Your task to perform on an android device: Where can I buy a nice beach hat? Image 0: 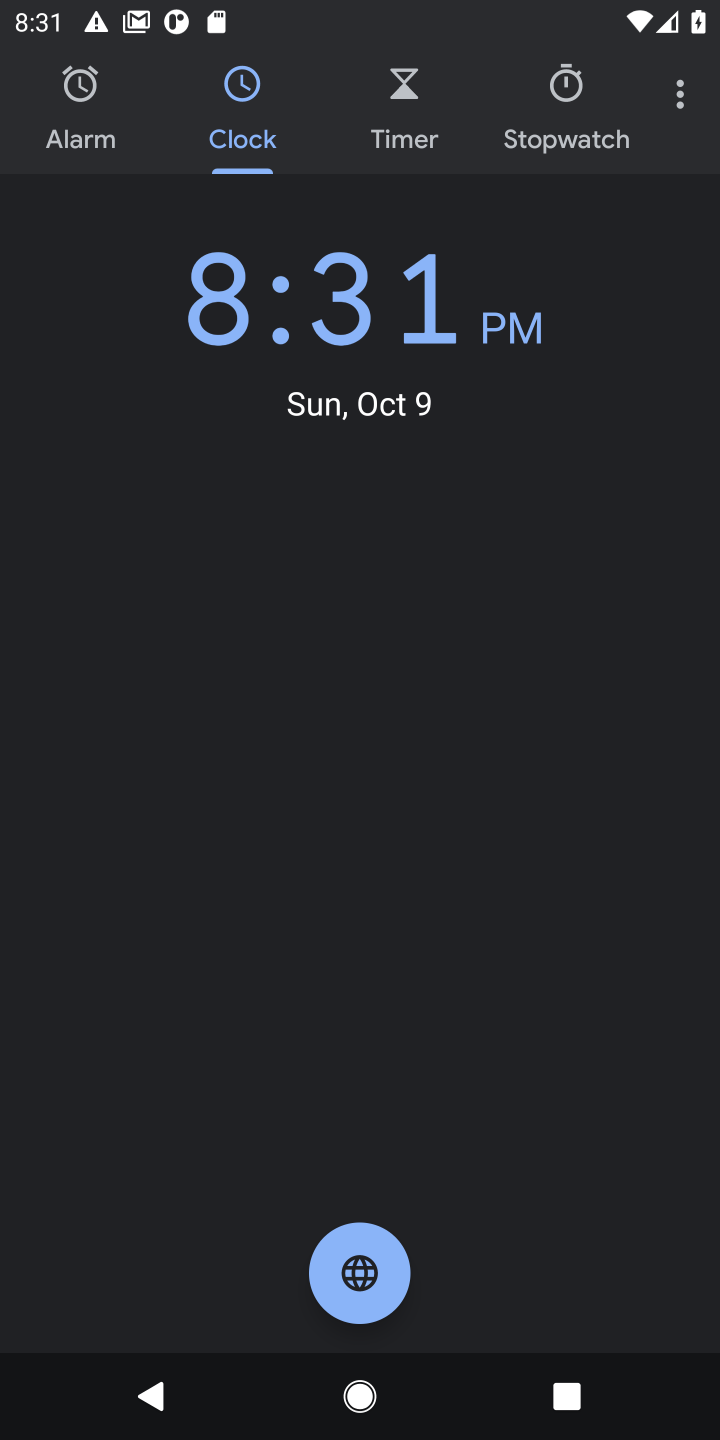
Step 0: press home button
Your task to perform on an android device: Where can I buy a nice beach hat? Image 1: 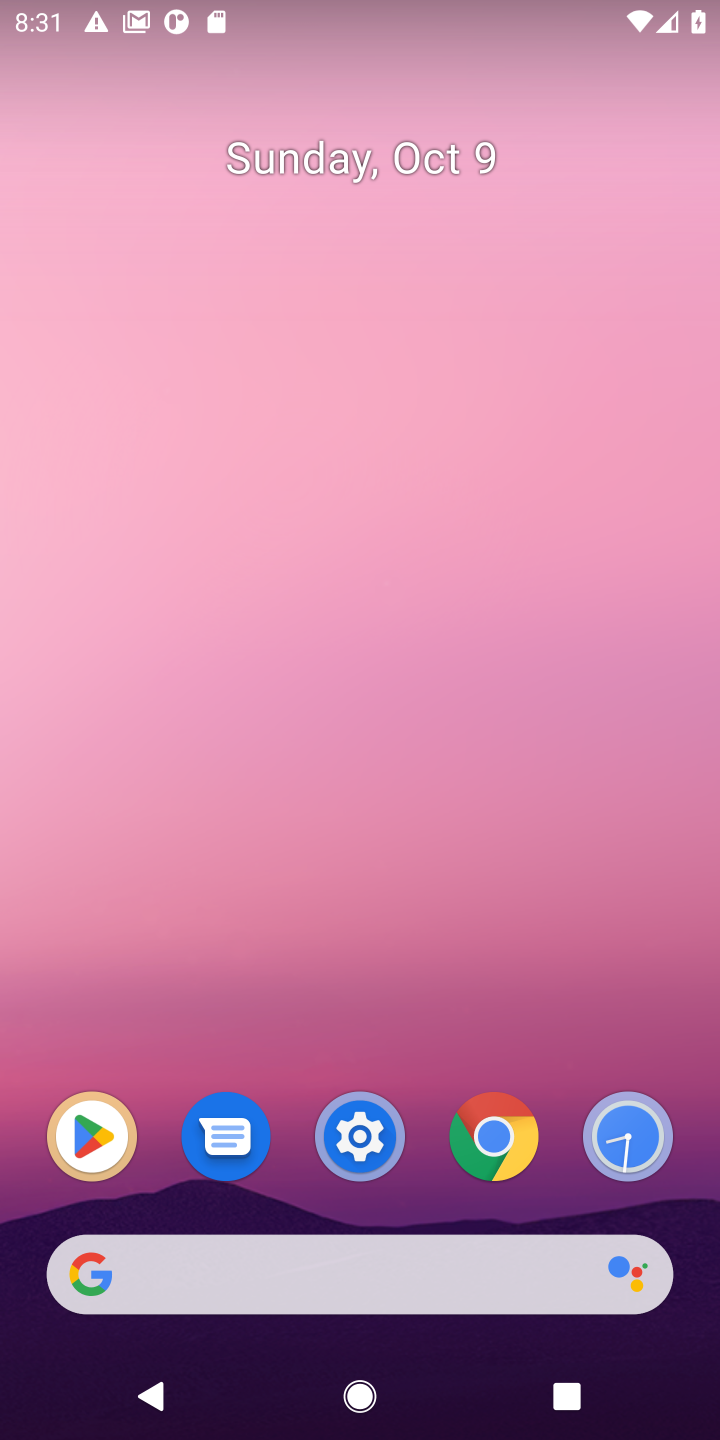
Step 1: click (205, 1292)
Your task to perform on an android device: Where can I buy a nice beach hat? Image 2: 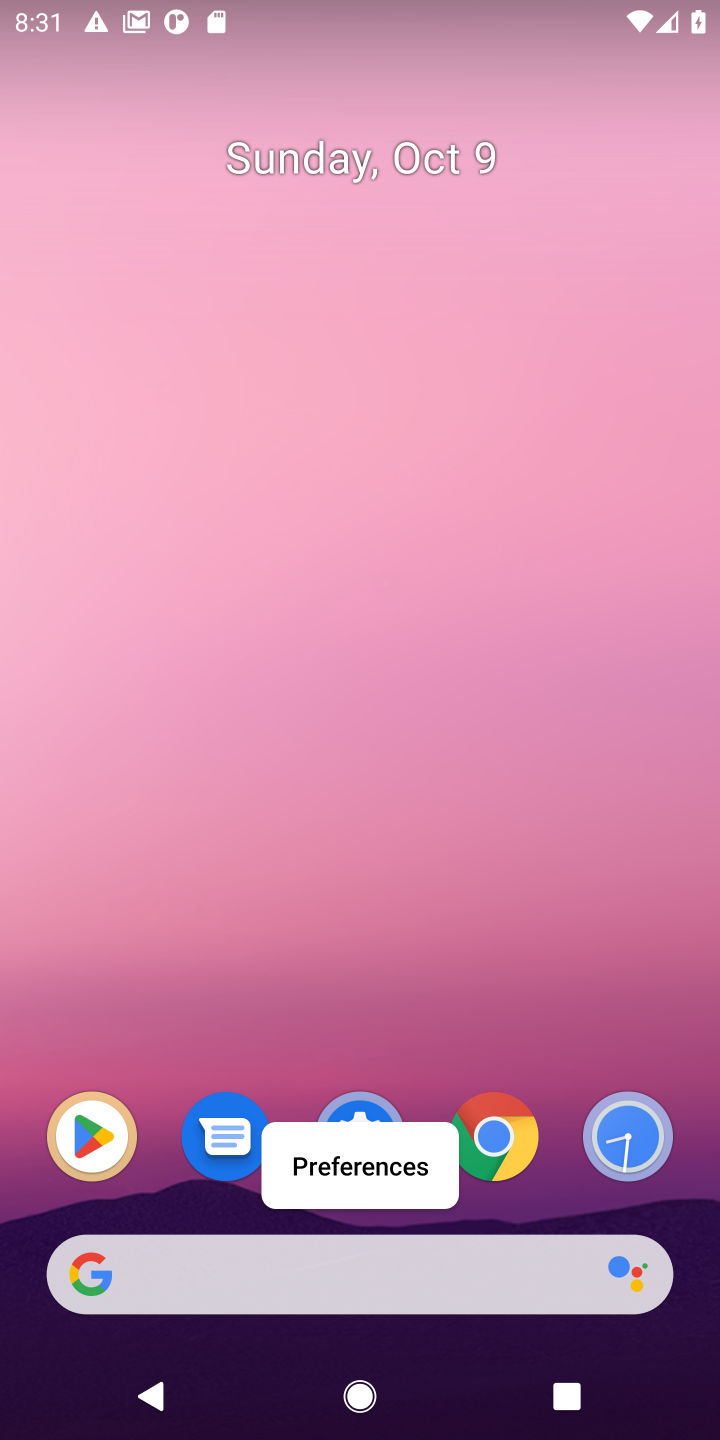
Step 2: type "Where can I buy a nice beach hat?"
Your task to perform on an android device: Where can I buy a nice beach hat? Image 3: 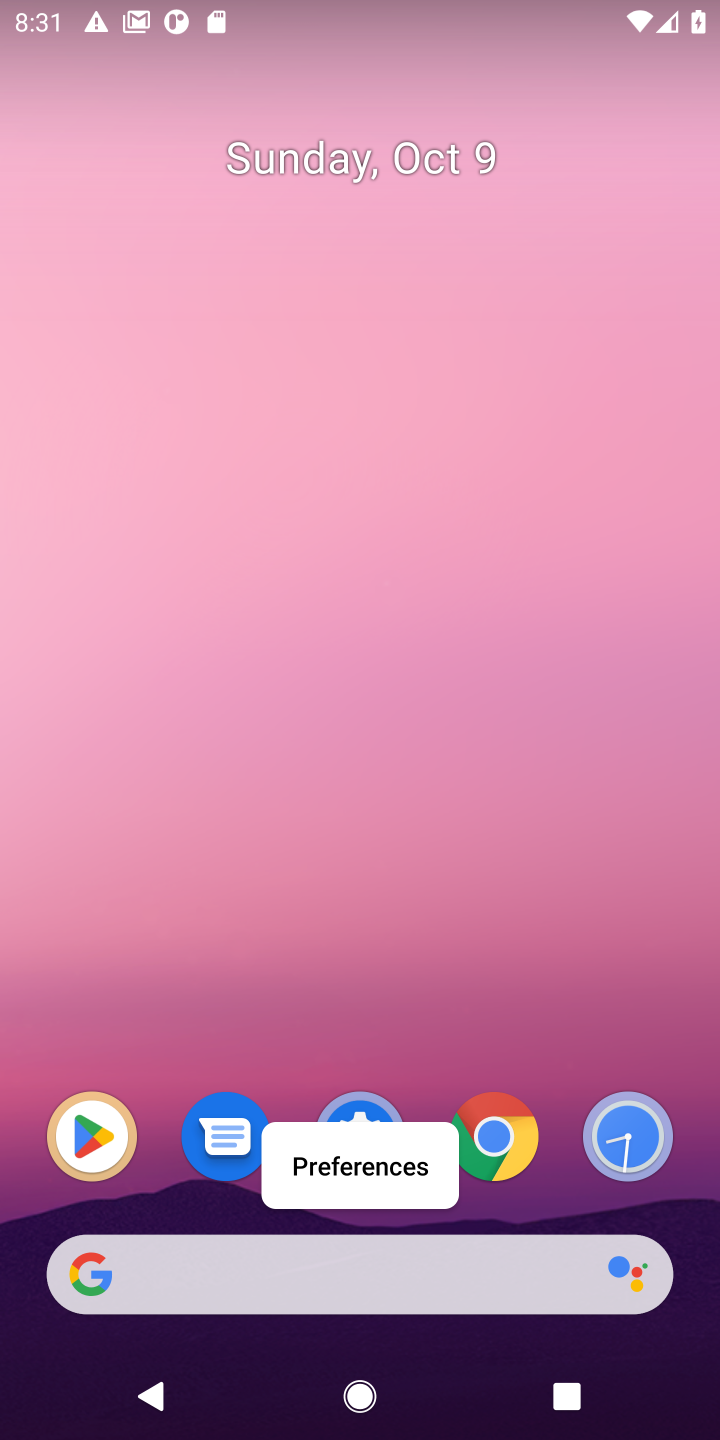
Step 3: click (362, 1263)
Your task to perform on an android device: Where can I buy a nice beach hat? Image 4: 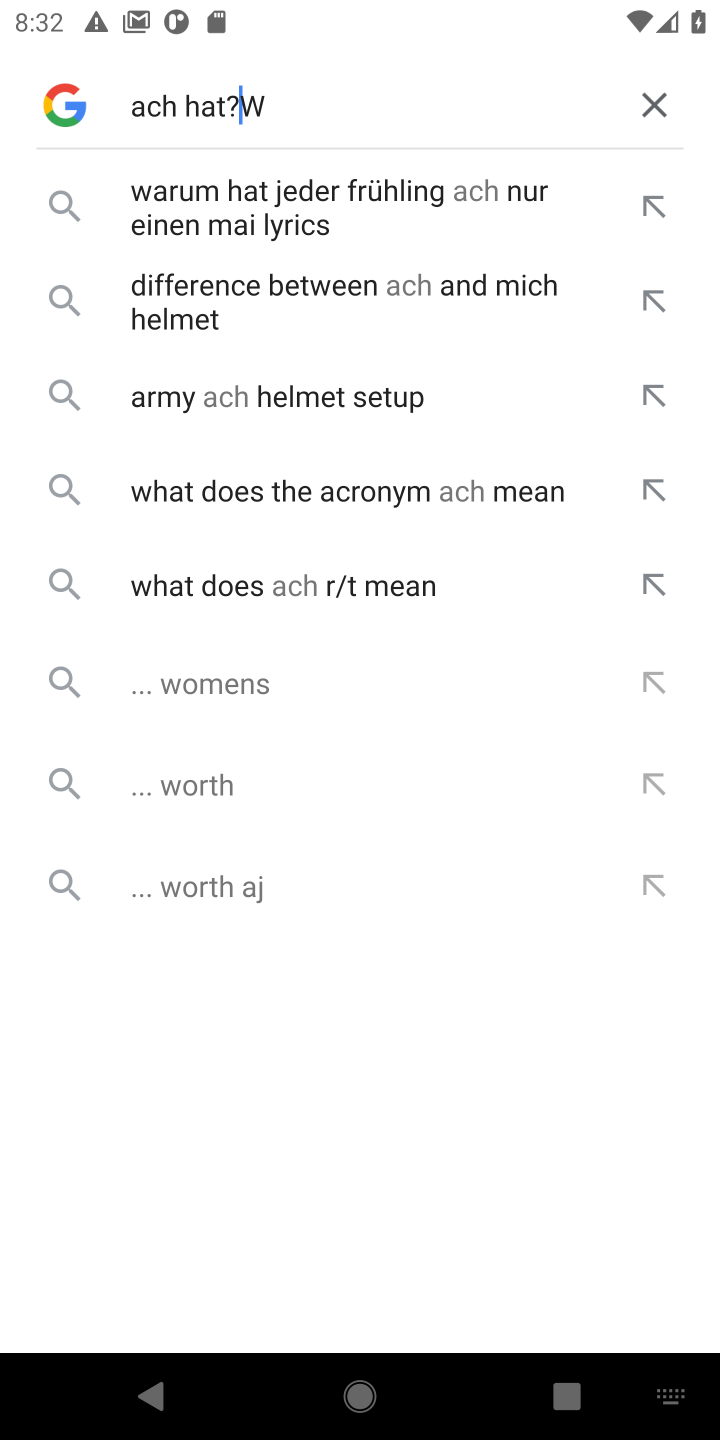
Step 4: click (653, 104)
Your task to perform on an android device: Where can I buy a nice beach hat? Image 5: 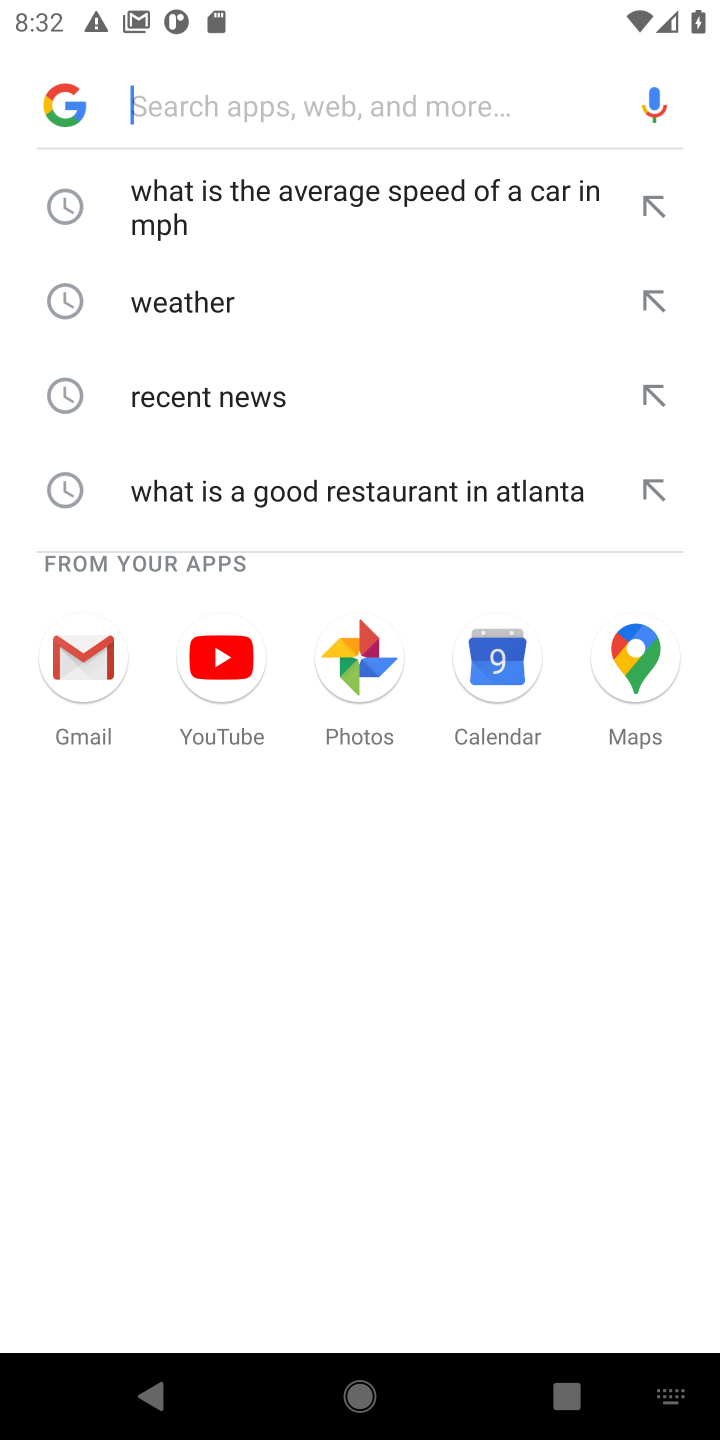
Step 5: type "Where can I buy a nice beach hat?"
Your task to perform on an android device: Where can I buy a nice beach hat? Image 6: 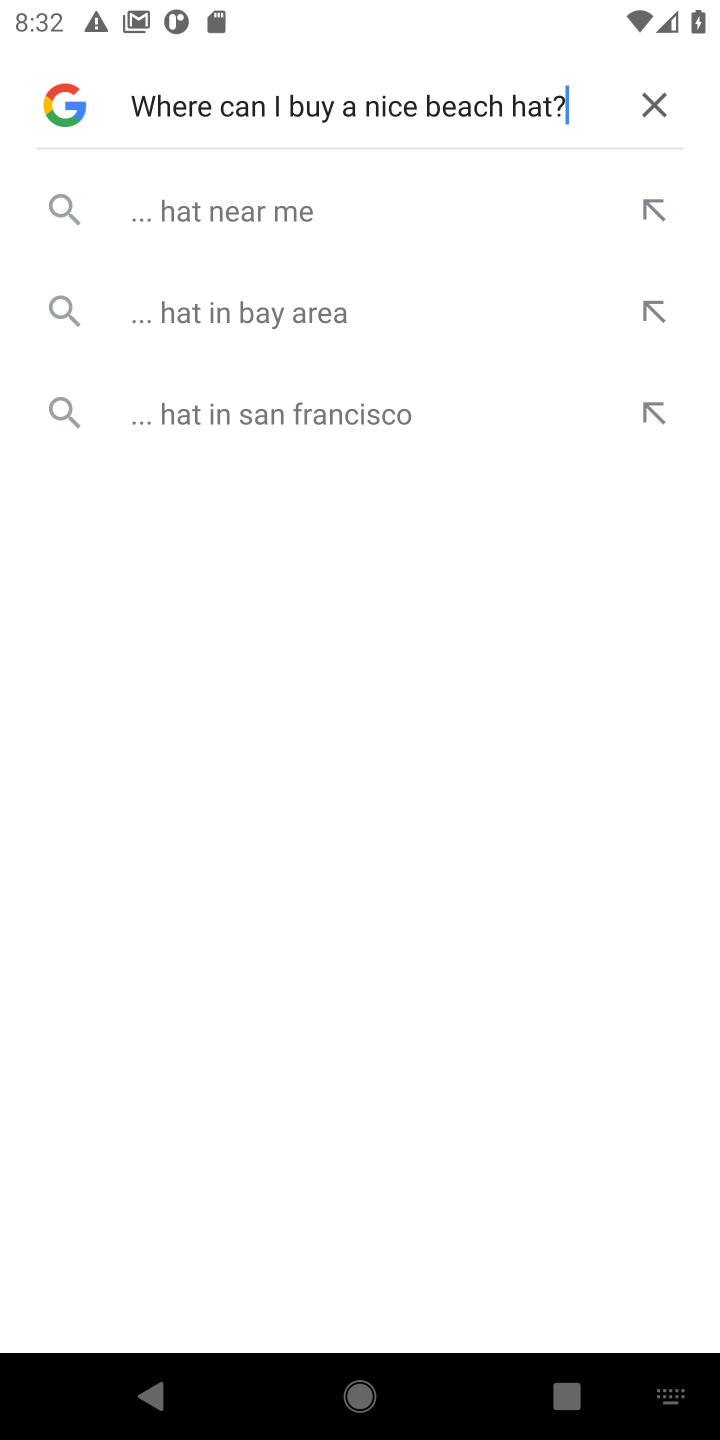
Step 6: click (306, 204)
Your task to perform on an android device: Where can I buy a nice beach hat? Image 7: 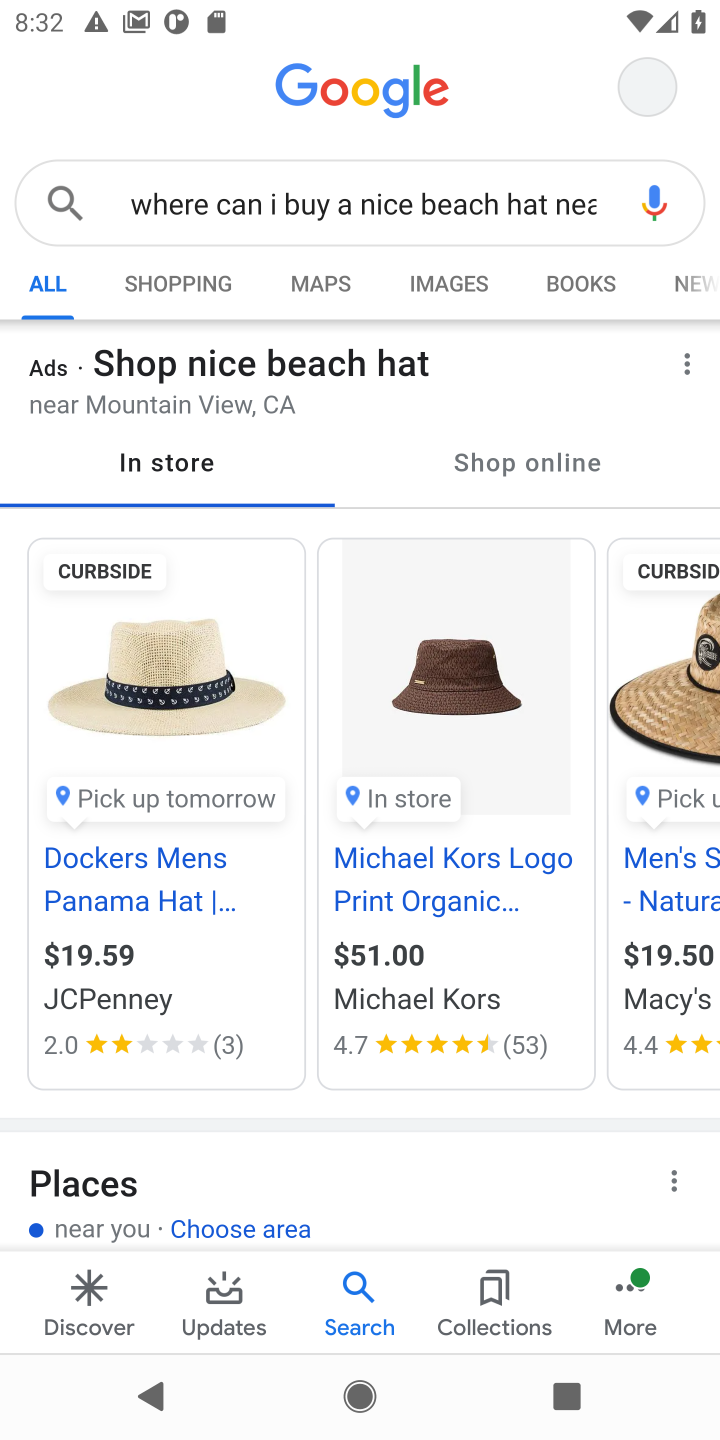
Step 7: task complete